Your task to perform on an android device: open the mobile data screen to see how much data has been used Image 0: 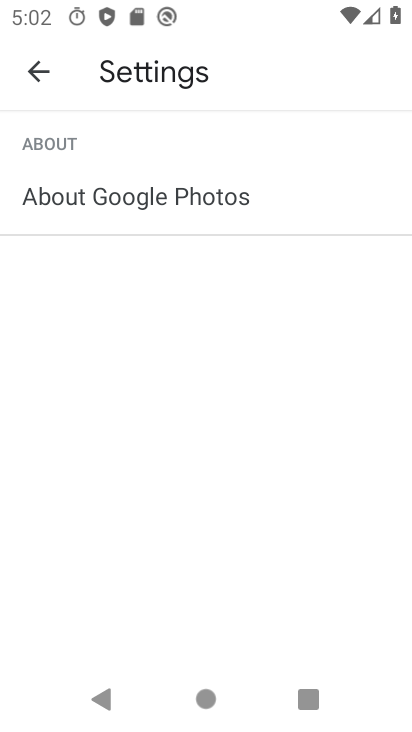
Step 0: press home button
Your task to perform on an android device: open the mobile data screen to see how much data has been used Image 1: 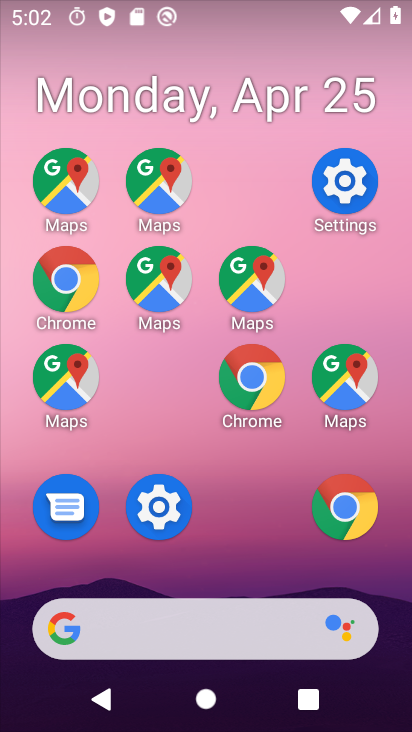
Step 1: drag from (255, 669) to (79, 1)
Your task to perform on an android device: open the mobile data screen to see how much data has been used Image 2: 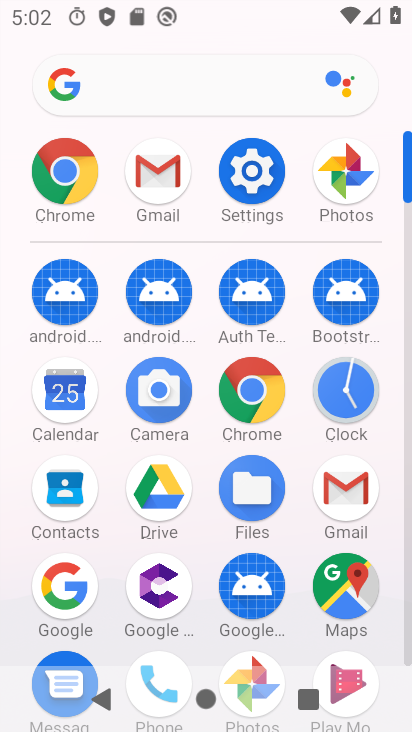
Step 2: click (243, 173)
Your task to perform on an android device: open the mobile data screen to see how much data has been used Image 3: 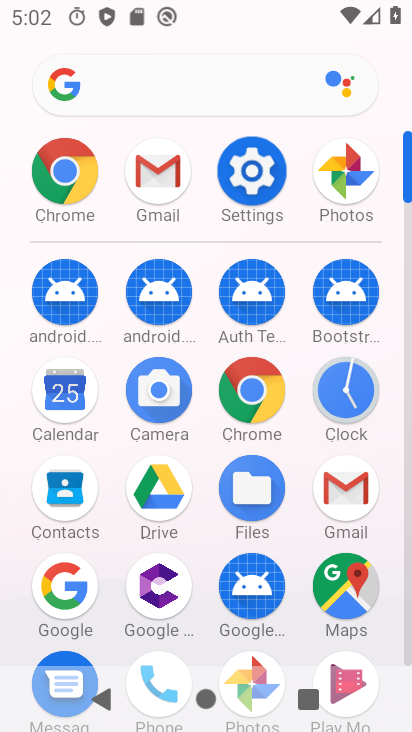
Step 3: click (232, 191)
Your task to perform on an android device: open the mobile data screen to see how much data has been used Image 4: 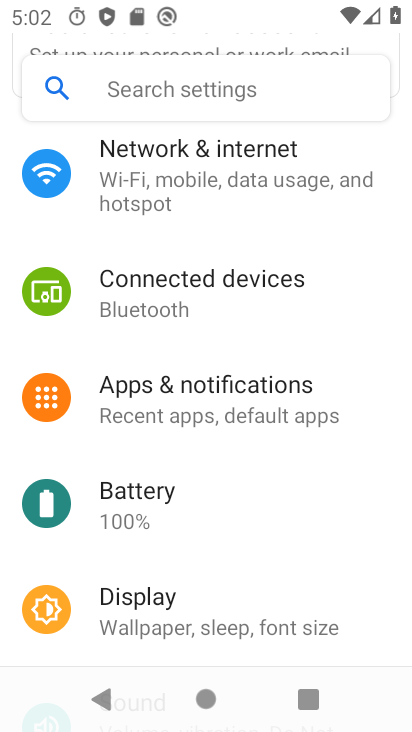
Step 4: click (191, 178)
Your task to perform on an android device: open the mobile data screen to see how much data has been used Image 5: 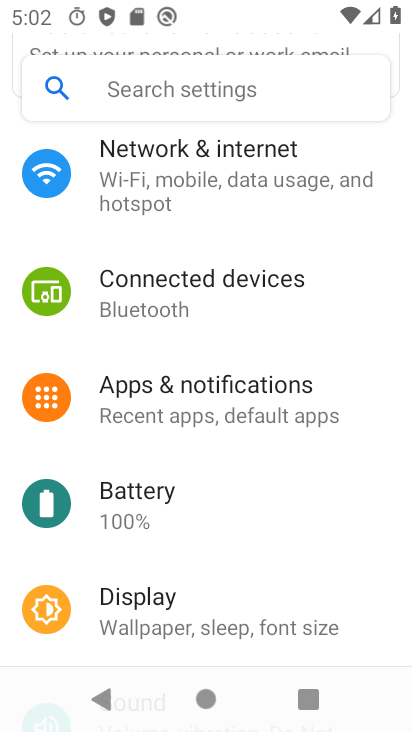
Step 5: click (184, 194)
Your task to perform on an android device: open the mobile data screen to see how much data has been used Image 6: 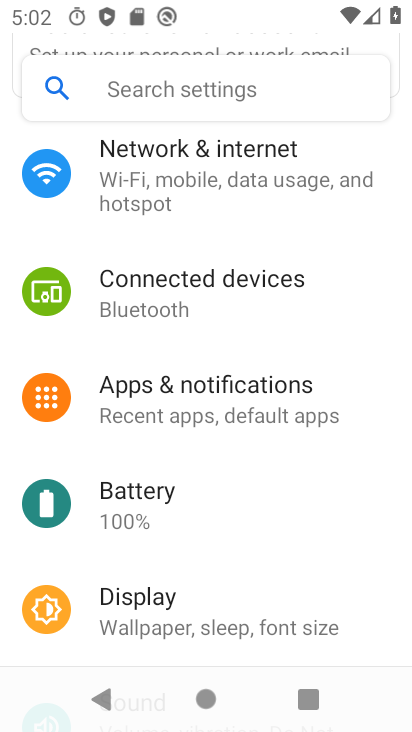
Step 6: click (188, 183)
Your task to perform on an android device: open the mobile data screen to see how much data has been used Image 7: 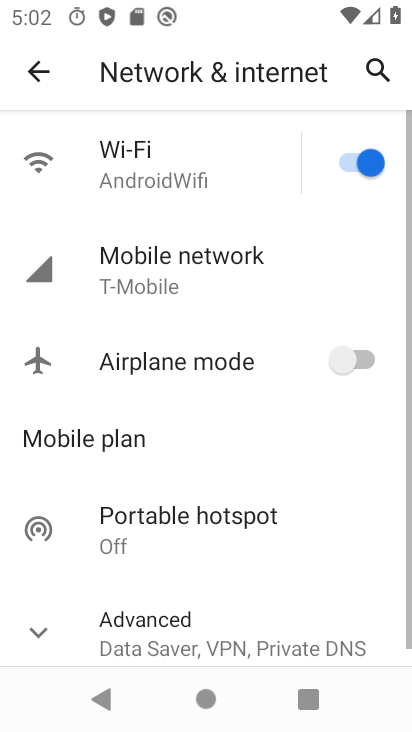
Step 7: click (188, 183)
Your task to perform on an android device: open the mobile data screen to see how much data has been used Image 8: 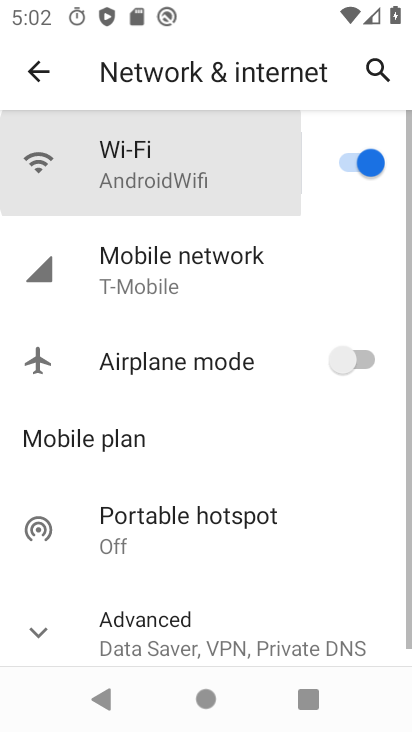
Step 8: click (185, 190)
Your task to perform on an android device: open the mobile data screen to see how much data has been used Image 9: 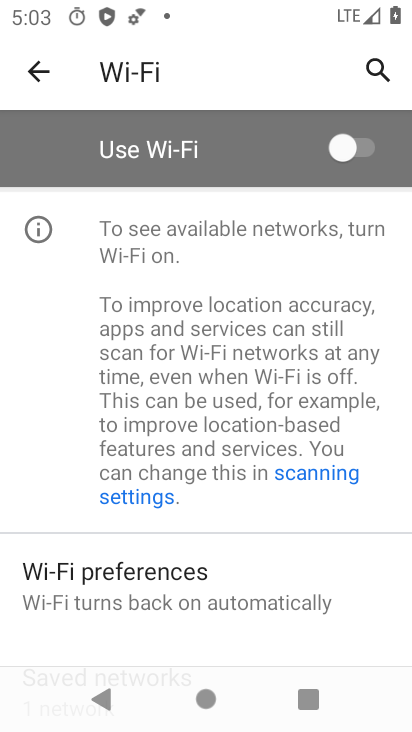
Step 9: click (337, 145)
Your task to perform on an android device: open the mobile data screen to see how much data has been used Image 10: 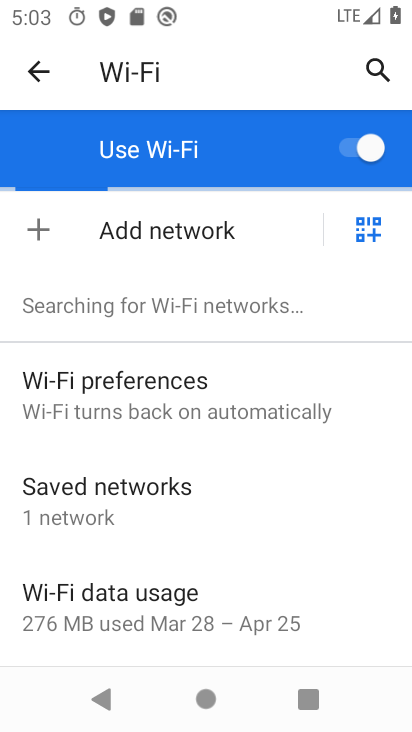
Step 10: task complete